Your task to perform on an android device: Open network settings Image 0: 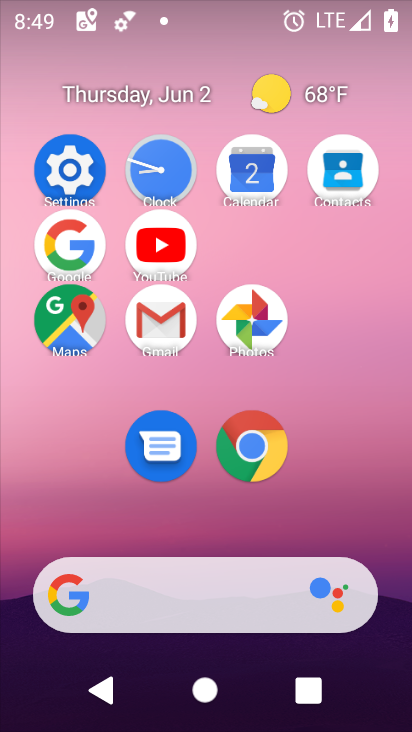
Step 0: click (88, 151)
Your task to perform on an android device: Open network settings Image 1: 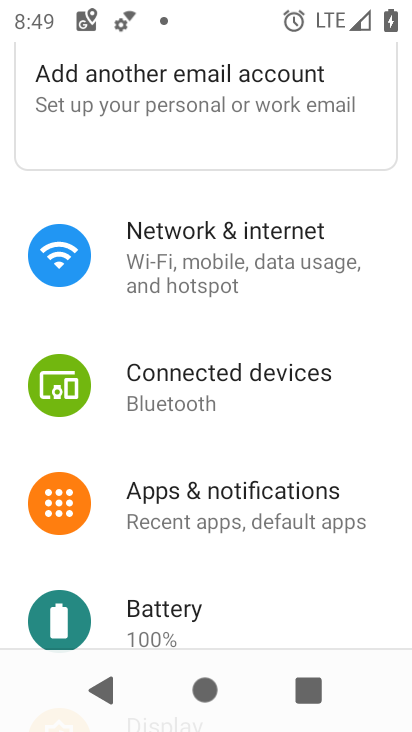
Step 1: click (234, 263)
Your task to perform on an android device: Open network settings Image 2: 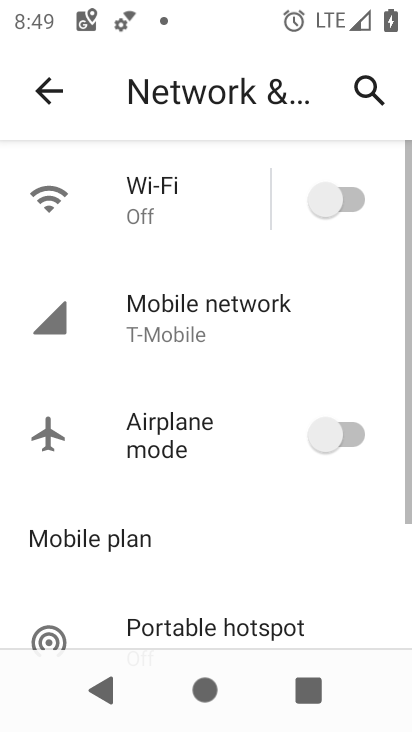
Step 2: task complete